Your task to perform on an android device: install app "Adobe Express: Graphic Design" Image 0: 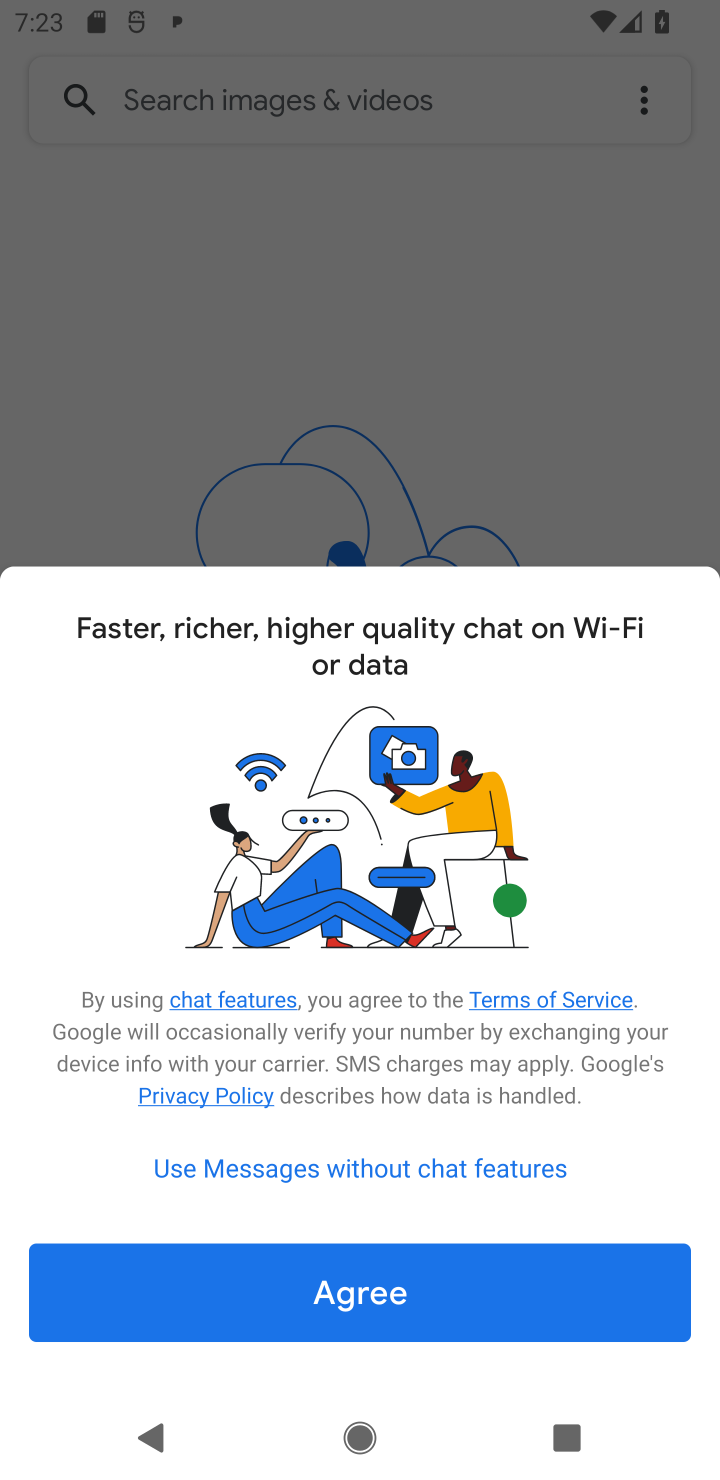
Step 0: press home button
Your task to perform on an android device: install app "Adobe Express: Graphic Design" Image 1: 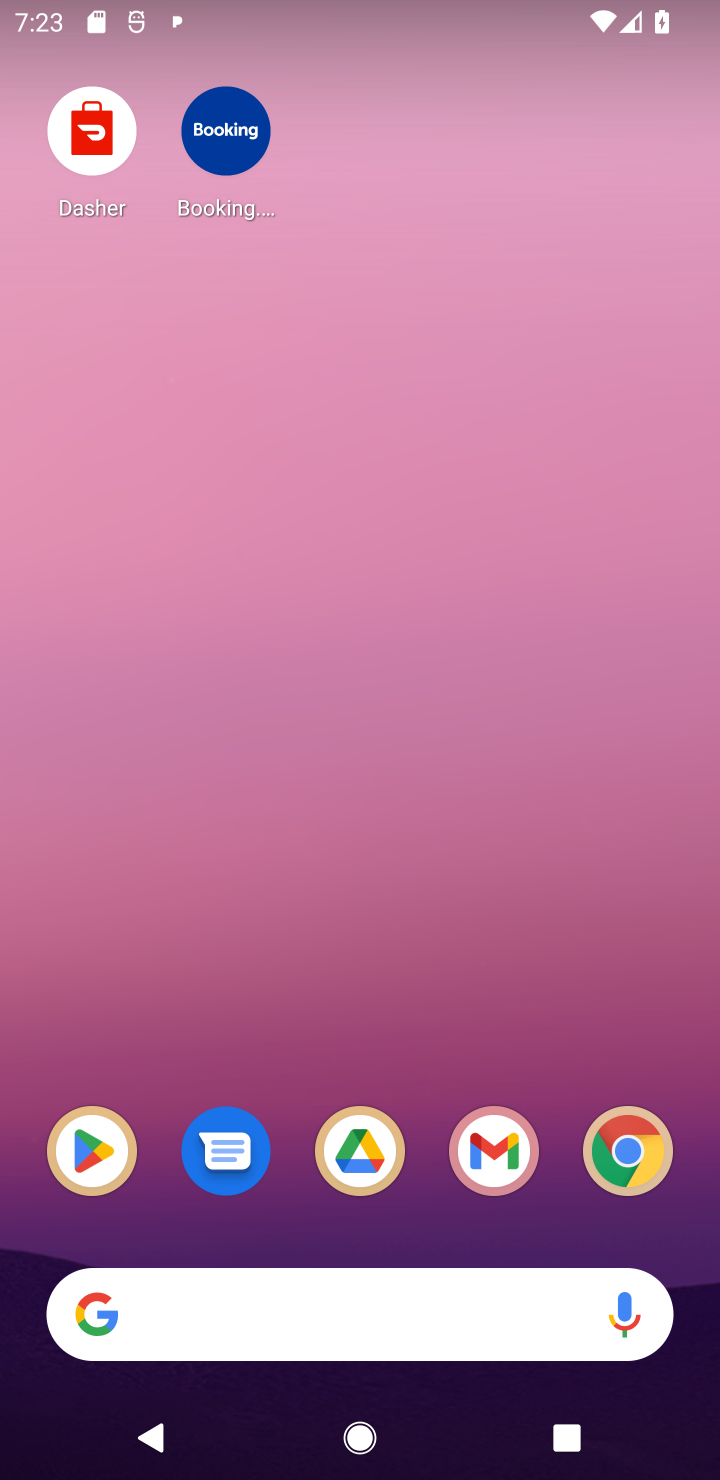
Step 1: click (70, 1160)
Your task to perform on an android device: install app "Adobe Express: Graphic Design" Image 2: 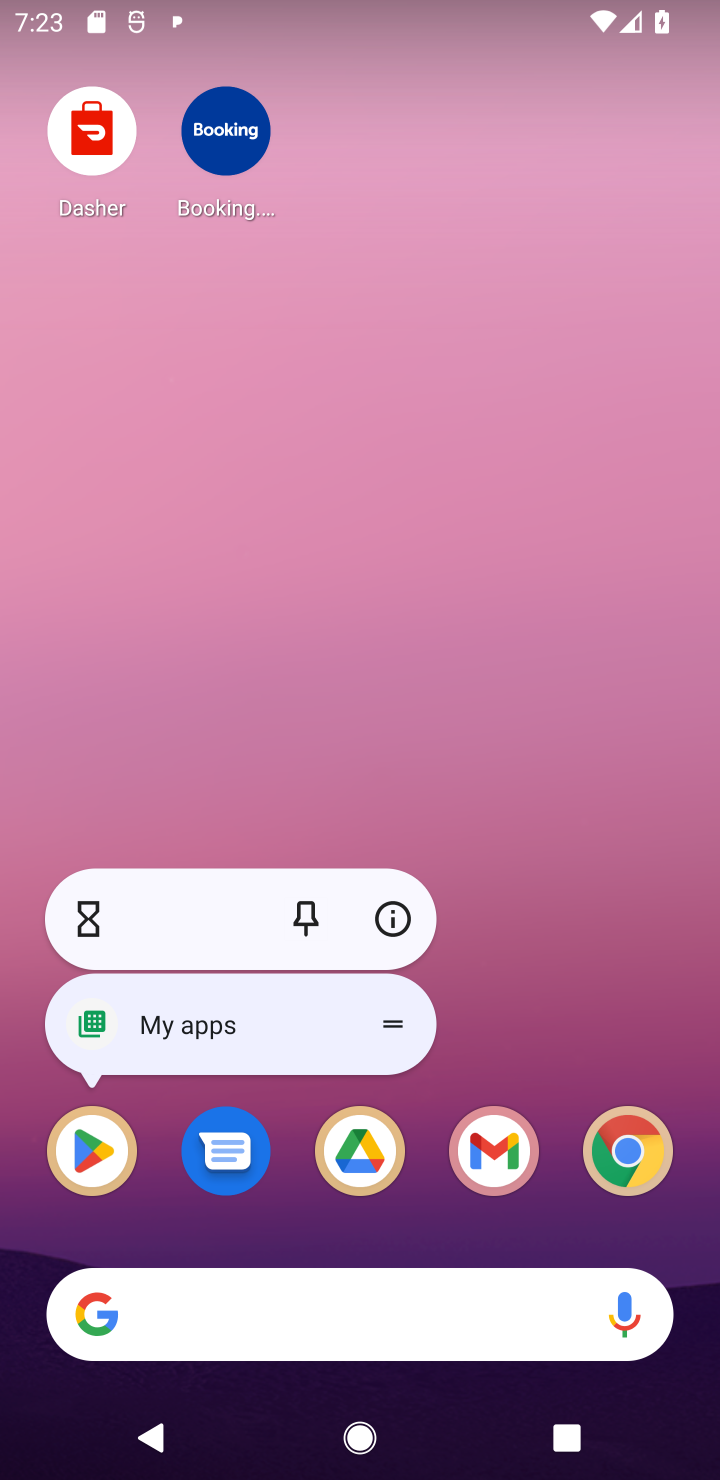
Step 2: click (96, 1152)
Your task to perform on an android device: install app "Adobe Express: Graphic Design" Image 3: 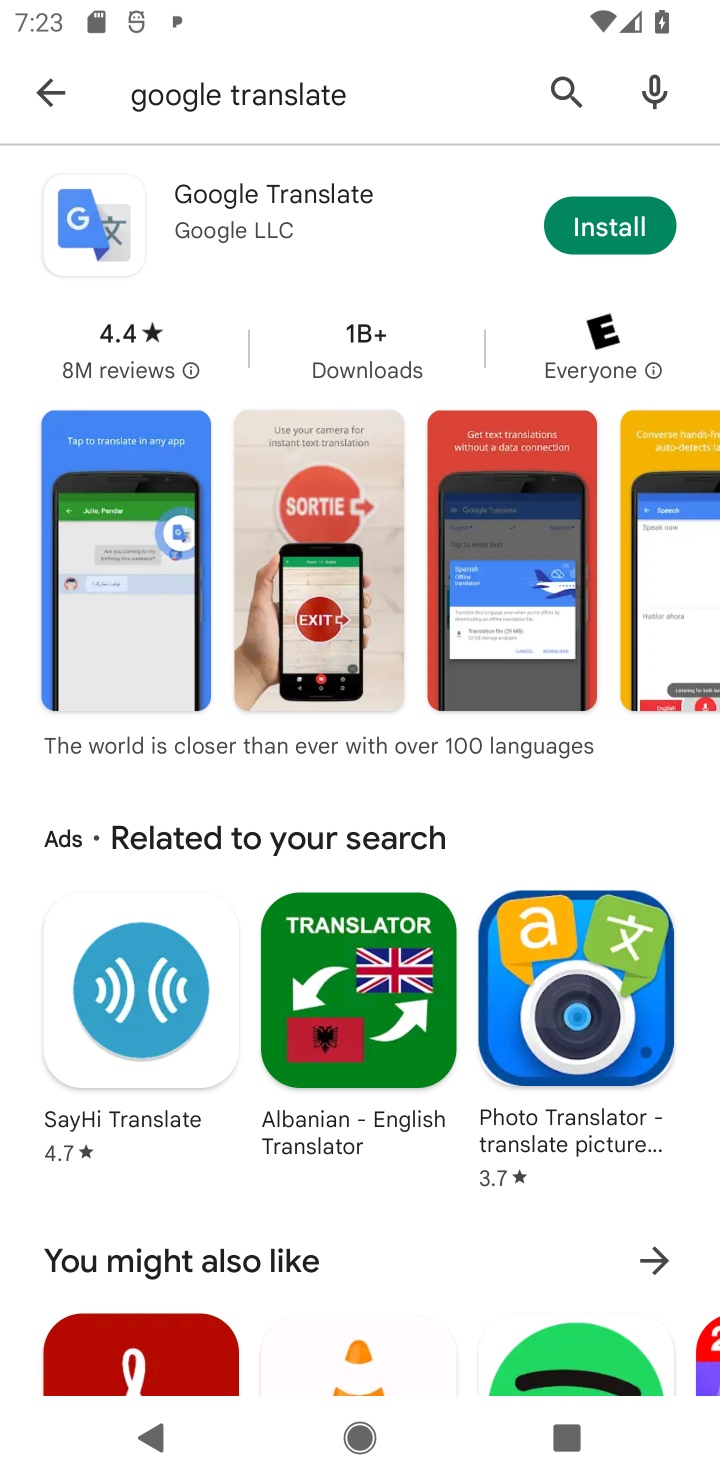
Step 3: click (566, 90)
Your task to perform on an android device: install app "Adobe Express: Graphic Design" Image 4: 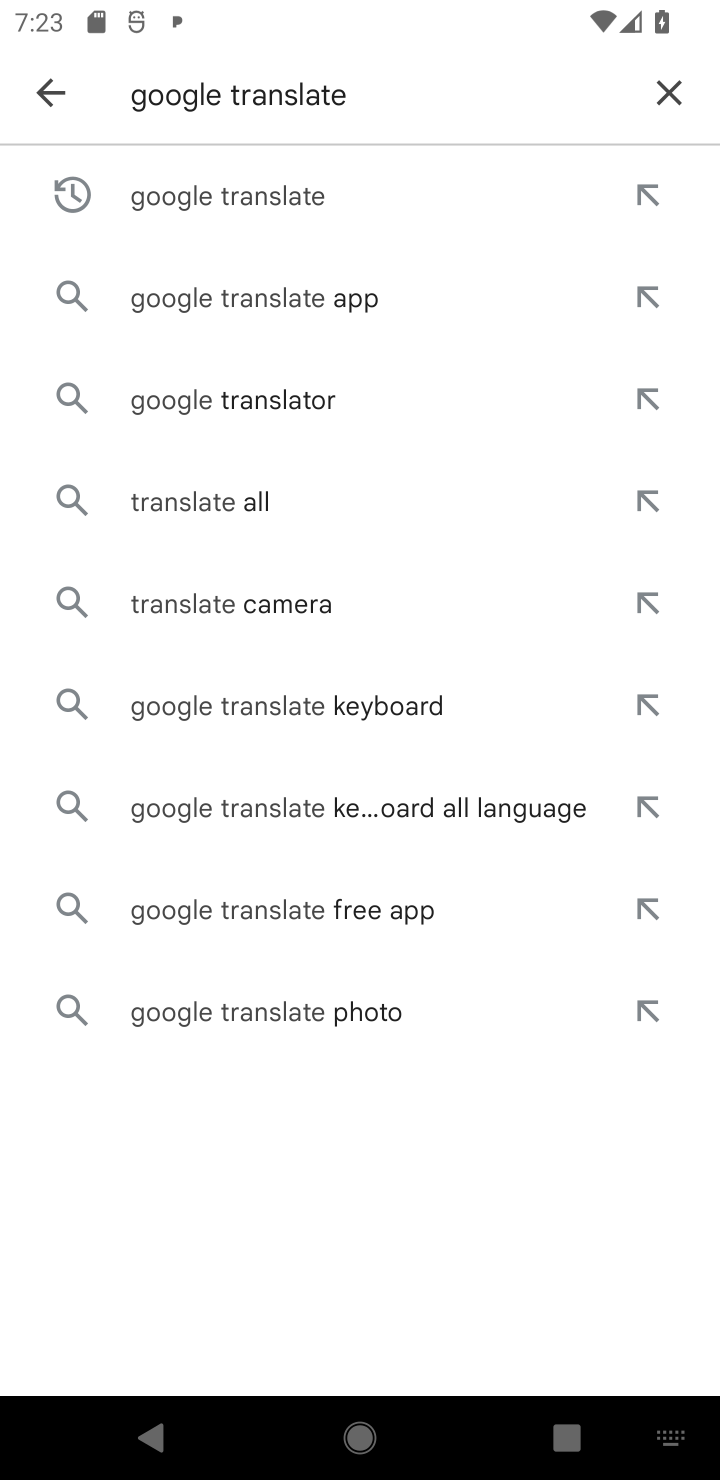
Step 4: click (677, 89)
Your task to perform on an android device: install app "Adobe Express: Graphic Design" Image 5: 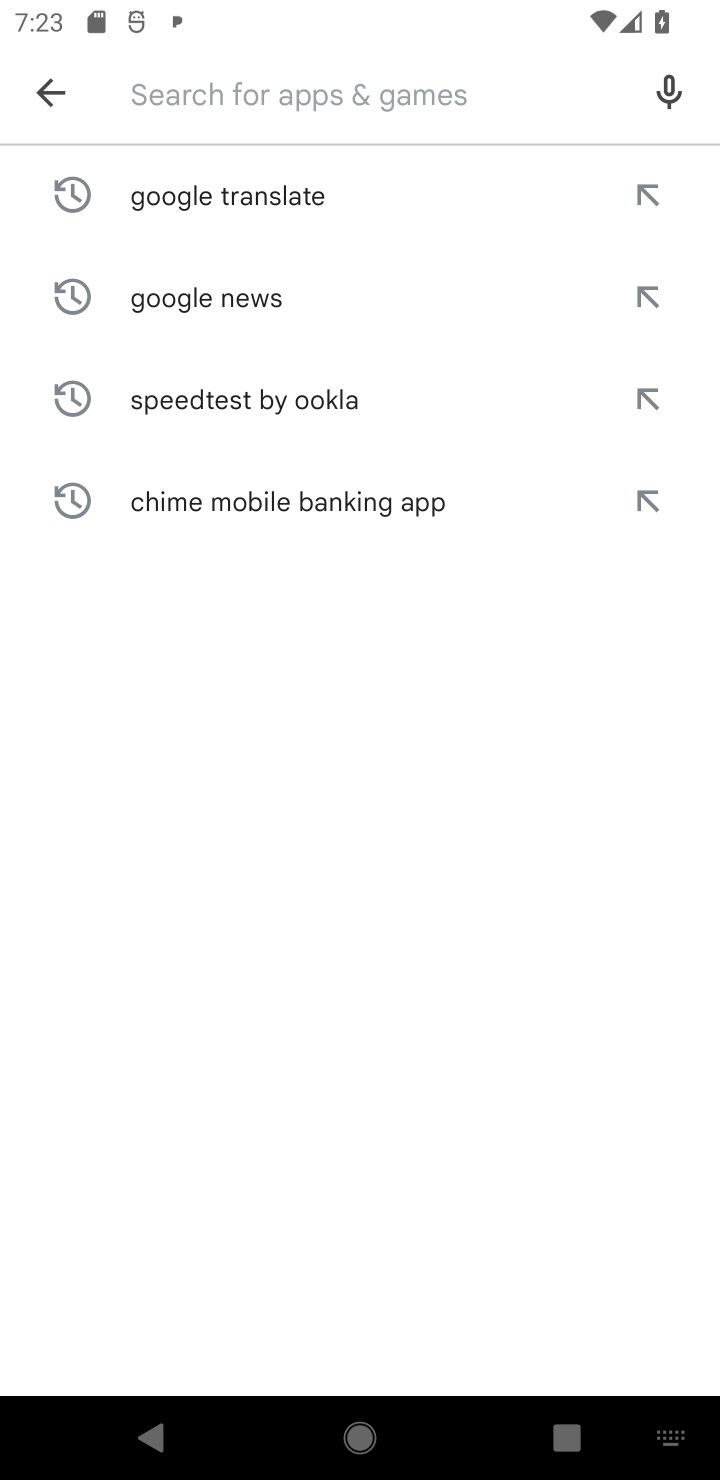
Step 5: type "Adobe Express: Graphic Design"
Your task to perform on an android device: install app "Adobe Express: Graphic Design" Image 6: 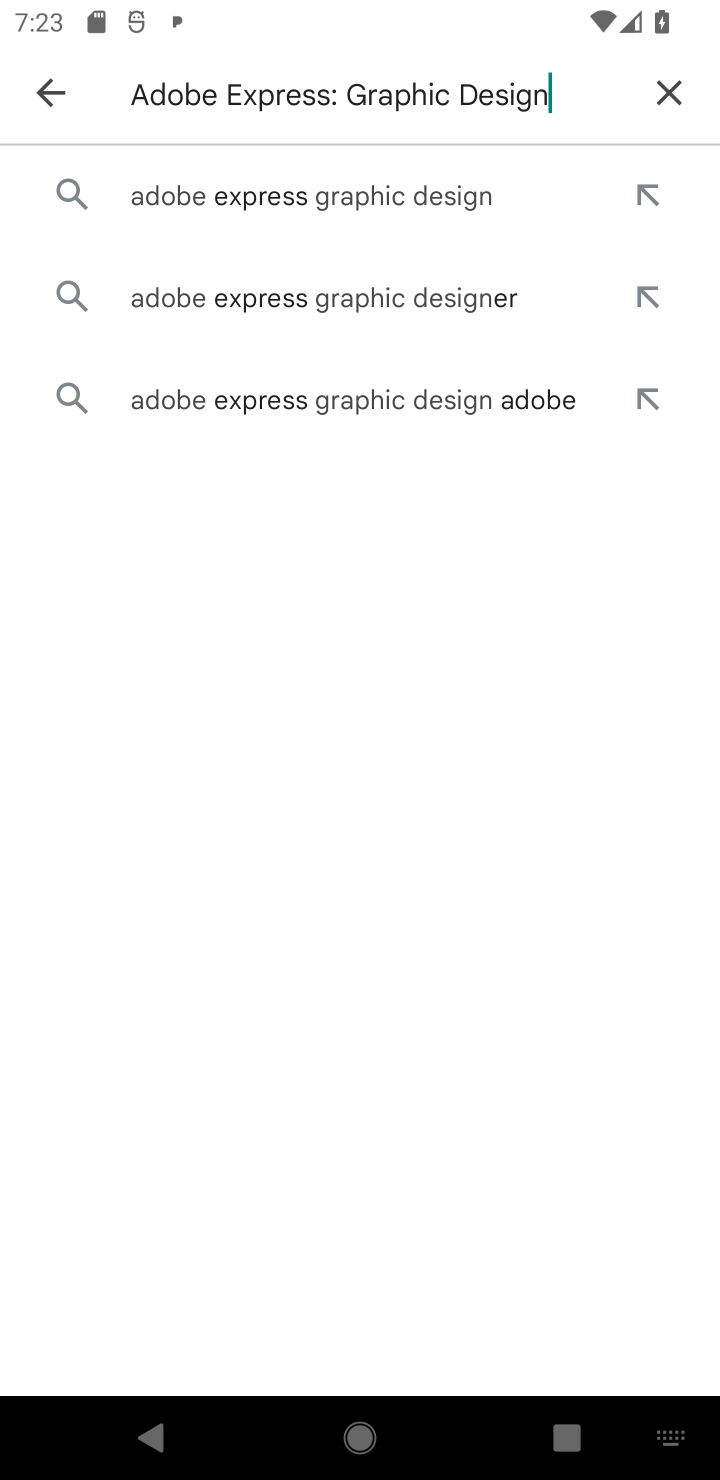
Step 6: click (239, 199)
Your task to perform on an android device: install app "Adobe Express: Graphic Design" Image 7: 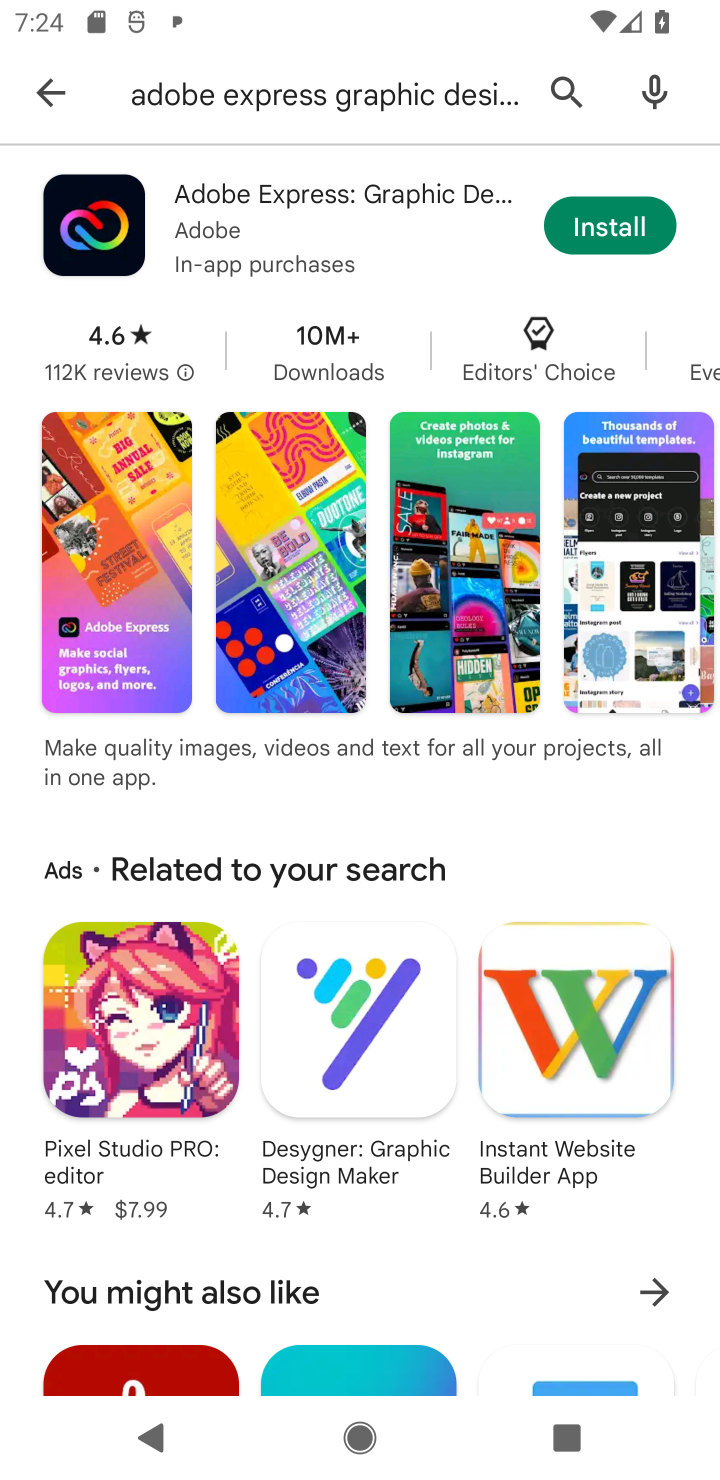
Step 7: click (578, 232)
Your task to perform on an android device: install app "Adobe Express: Graphic Design" Image 8: 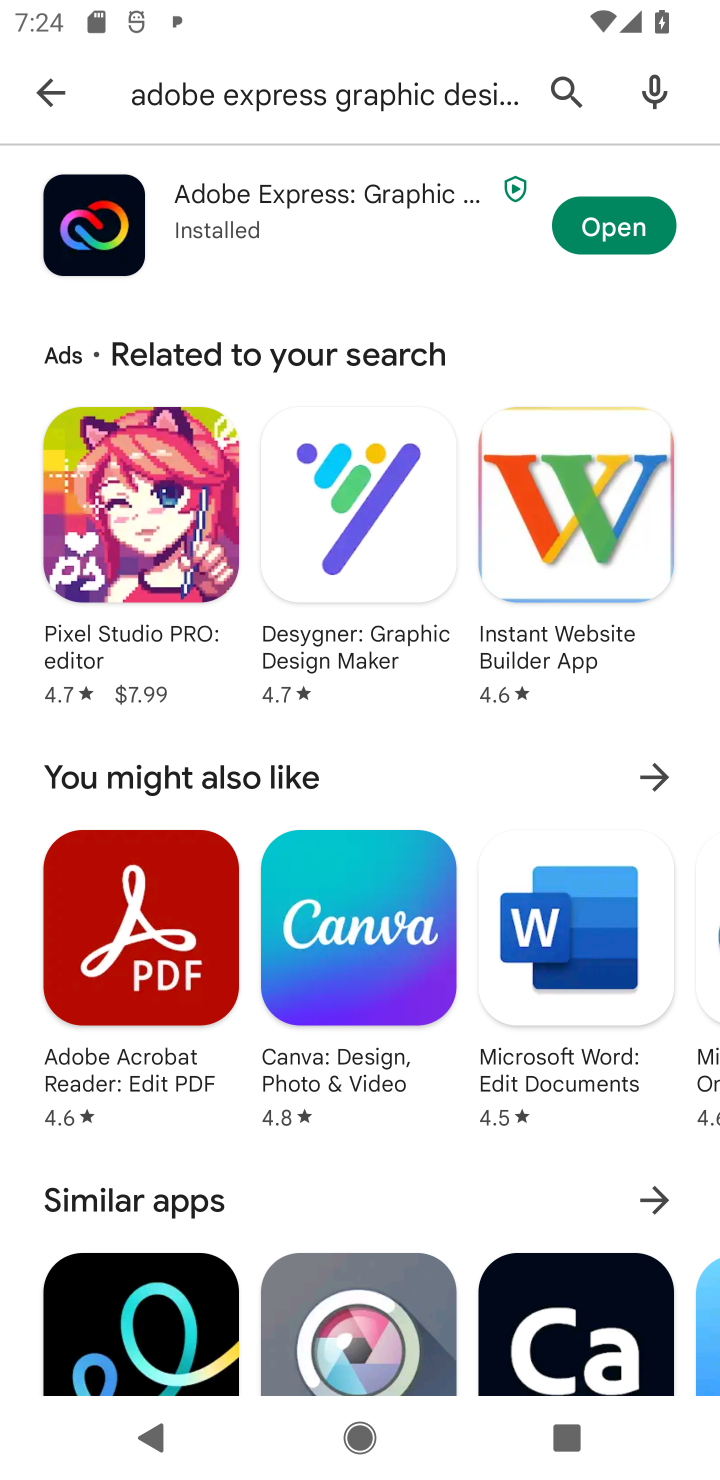
Step 8: task complete